Your task to perform on an android device: Search for Italian restaurants on Maps Image 0: 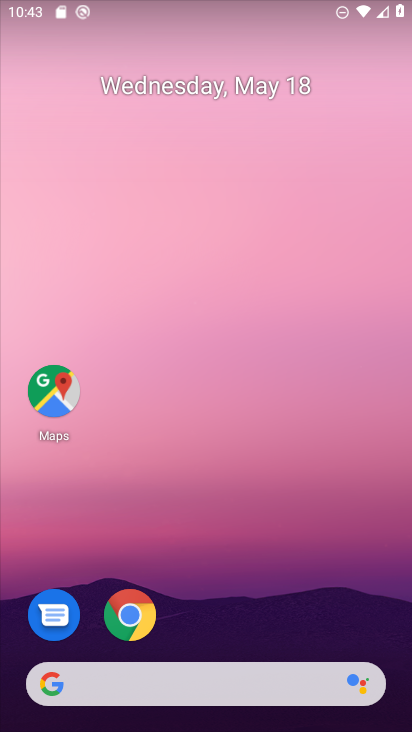
Step 0: click (51, 387)
Your task to perform on an android device: Search for Italian restaurants on Maps Image 1: 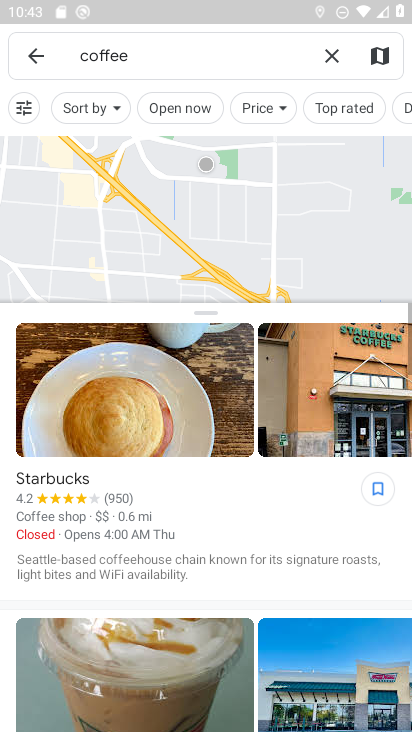
Step 1: click (326, 60)
Your task to perform on an android device: Search for Italian restaurants on Maps Image 2: 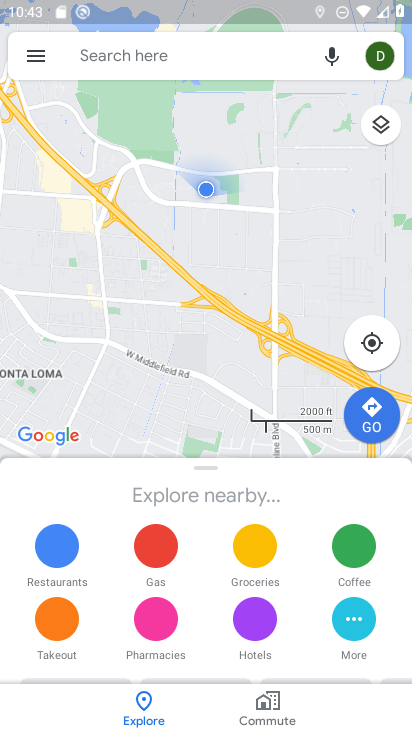
Step 2: click (188, 57)
Your task to perform on an android device: Search for Italian restaurants on Maps Image 3: 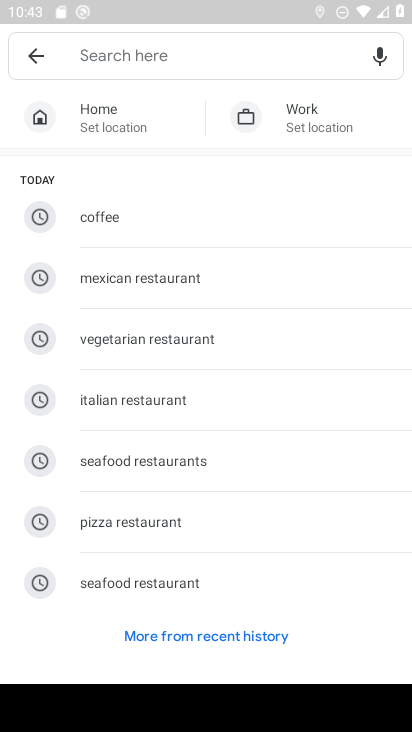
Step 3: click (137, 404)
Your task to perform on an android device: Search for Italian restaurants on Maps Image 4: 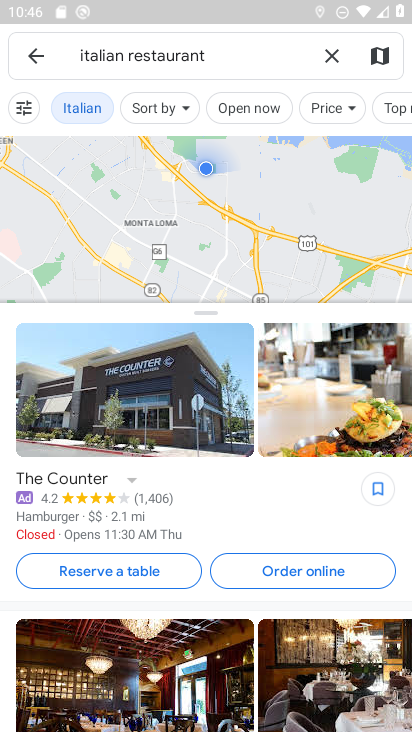
Step 4: task complete